Your task to perform on an android device: Search for Mexican restaurants on Maps Image 0: 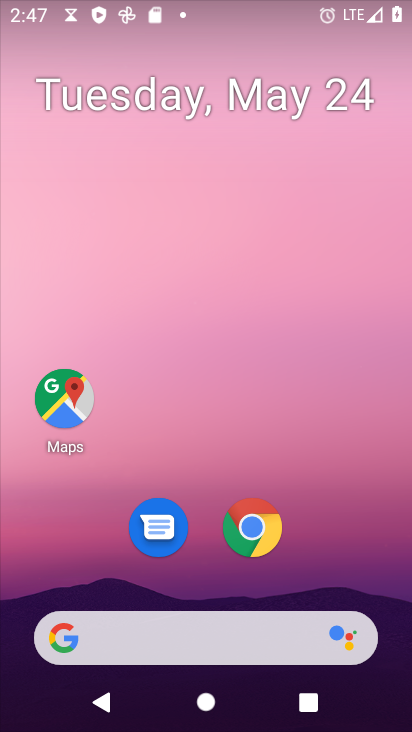
Step 0: press home button
Your task to perform on an android device: Search for Mexican restaurants on Maps Image 1: 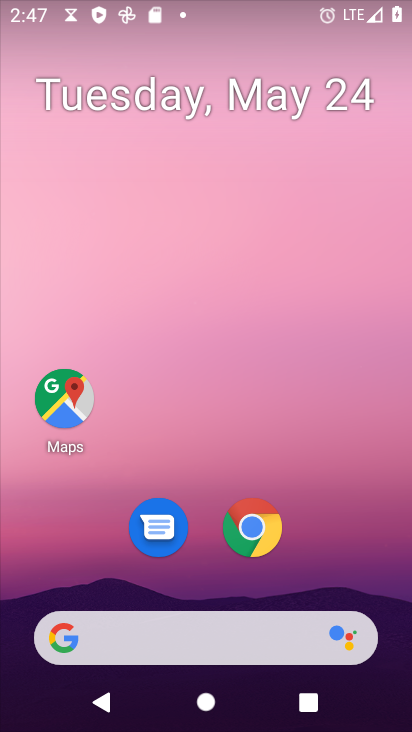
Step 1: click (62, 399)
Your task to perform on an android device: Search for Mexican restaurants on Maps Image 2: 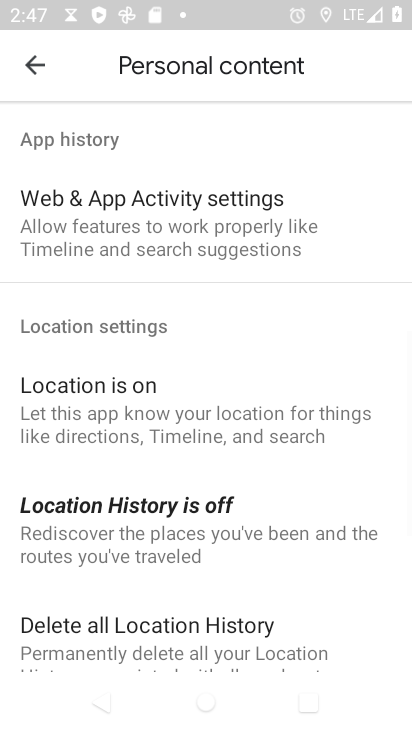
Step 2: click (36, 71)
Your task to perform on an android device: Search for Mexican restaurants on Maps Image 3: 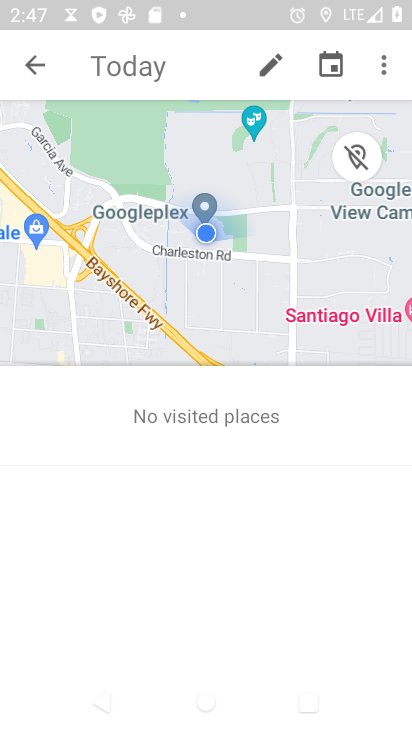
Step 3: click (36, 72)
Your task to perform on an android device: Search for Mexican restaurants on Maps Image 4: 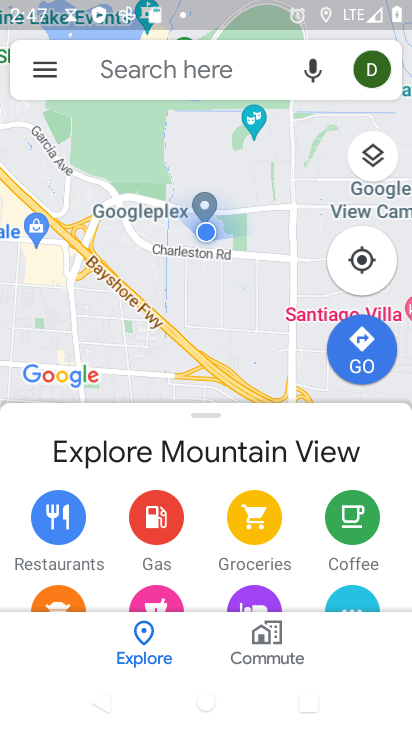
Step 4: click (175, 75)
Your task to perform on an android device: Search for Mexican restaurants on Maps Image 5: 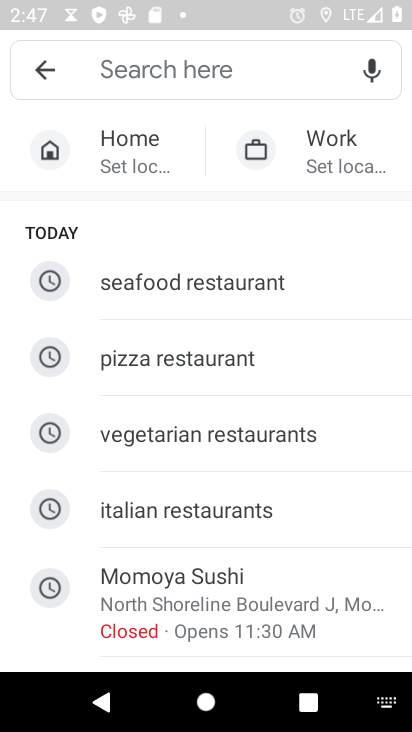
Step 5: drag from (186, 535) to (163, 507)
Your task to perform on an android device: Search for Mexican restaurants on Maps Image 6: 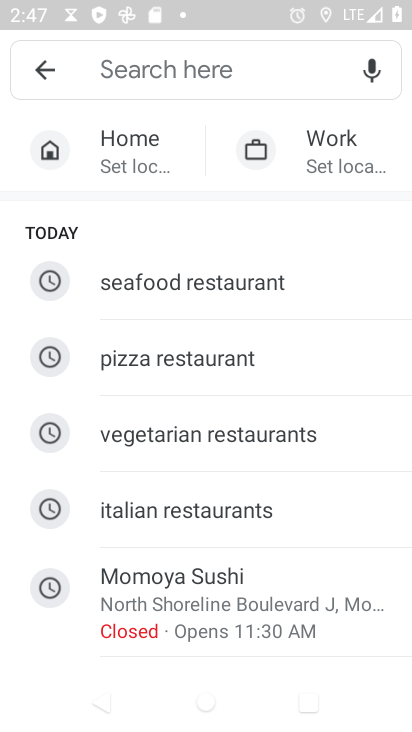
Step 6: click (171, 47)
Your task to perform on an android device: Search for Mexican restaurants on Maps Image 7: 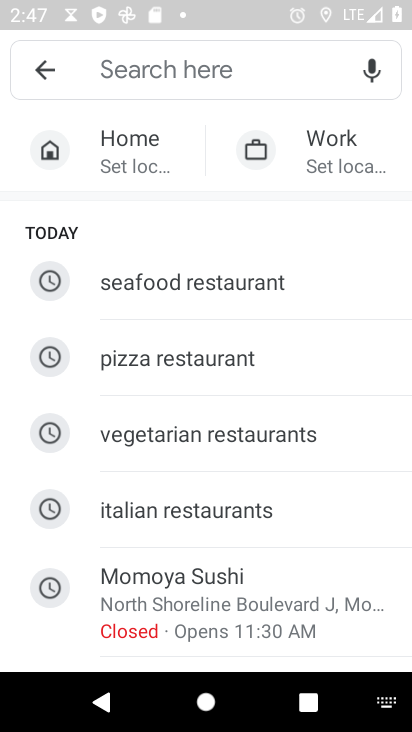
Step 7: type "mexican"
Your task to perform on an android device: Search for Mexican restaurants on Maps Image 8: 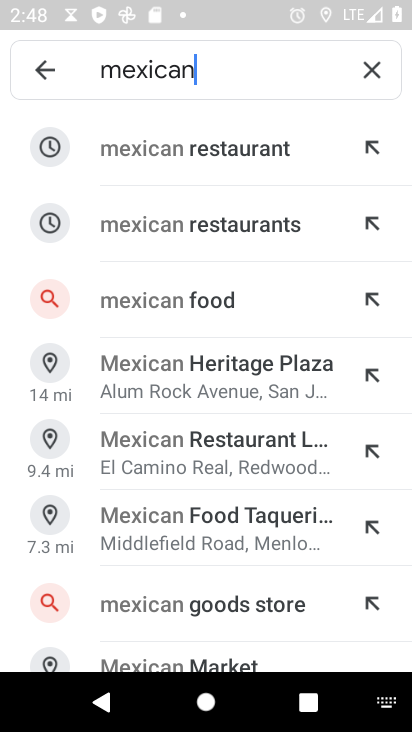
Step 8: click (207, 153)
Your task to perform on an android device: Search for Mexican restaurants on Maps Image 9: 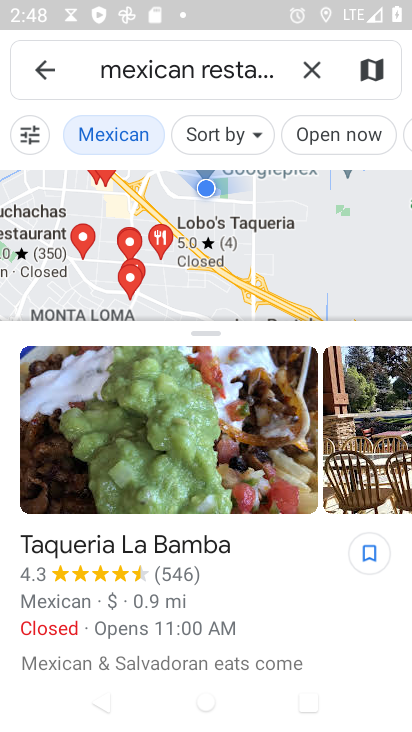
Step 9: task complete